Your task to perform on an android device: toggle translation in the chrome app Image 0: 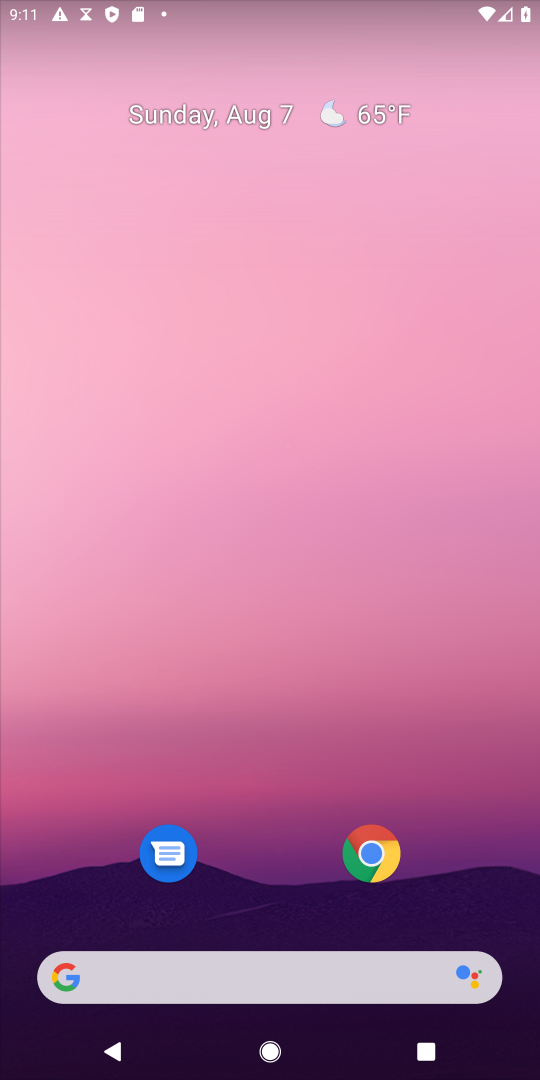
Step 0: drag from (275, 914) to (264, 45)
Your task to perform on an android device: toggle translation in the chrome app Image 1: 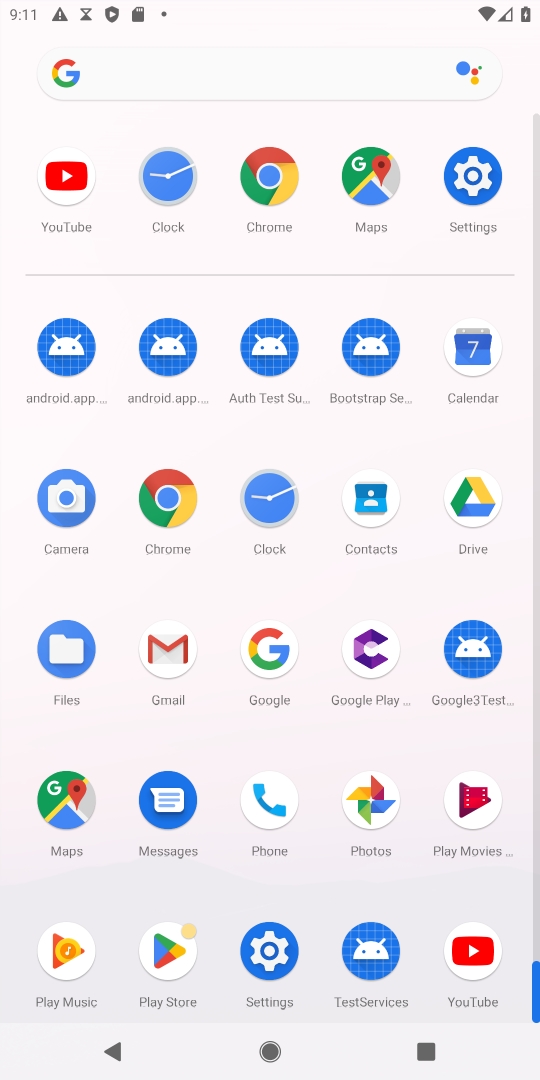
Step 1: click (267, 186)
Your task to perform on an android device: toggle translation in the chrome app Image 2: 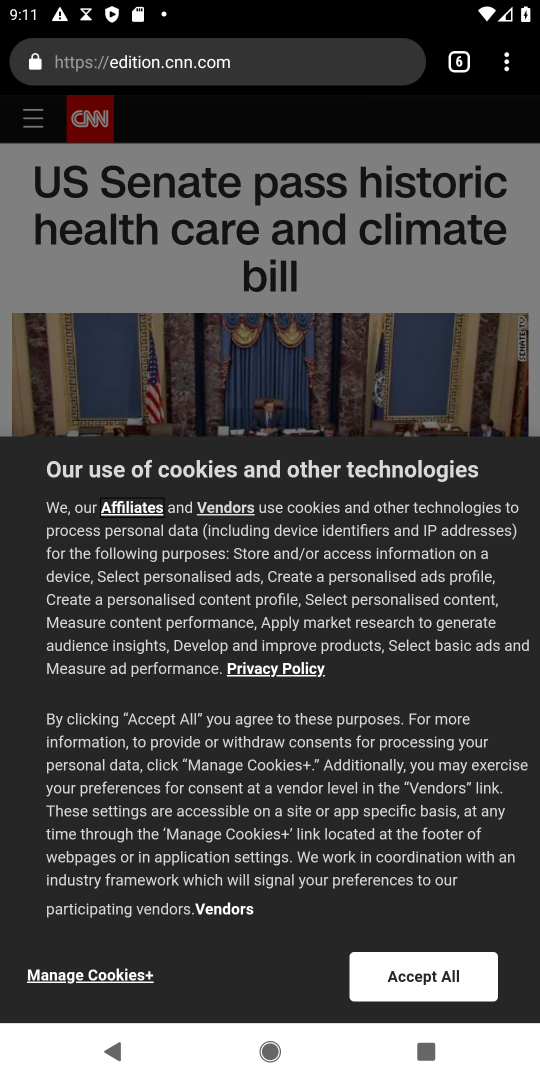
Step 2: click (515, 56)
Your task to perform on an android device: toggle translation in the chrome app Image 3: 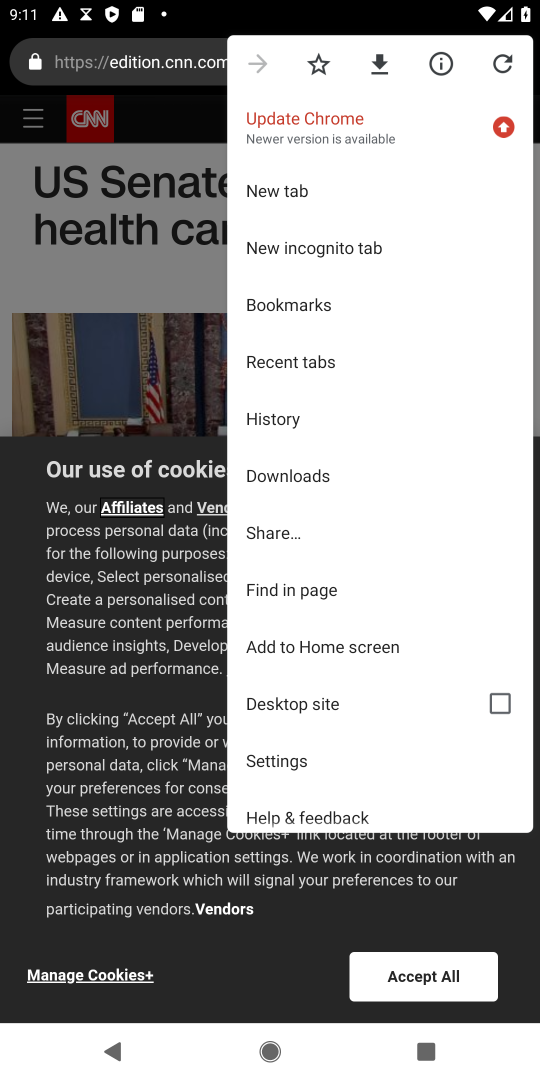
Step 3: click (305, 759)
Your task to perform on an android device: toggle translation in the chrome app Image 4: 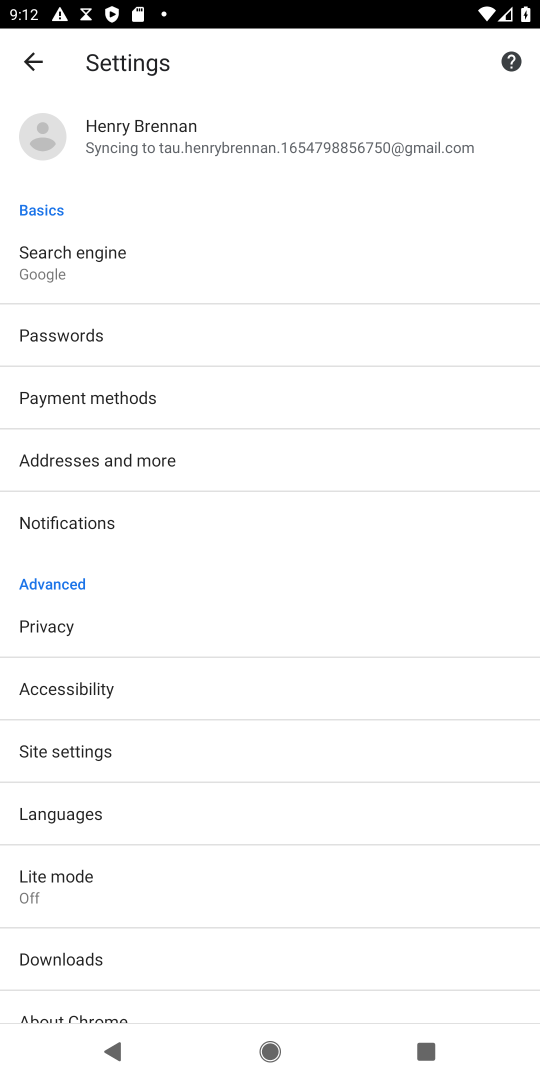
Step 4: drag from (162, 867) to (164, 505)
Your task to perform on an android device: toggle translation in the chrome app Image 5: 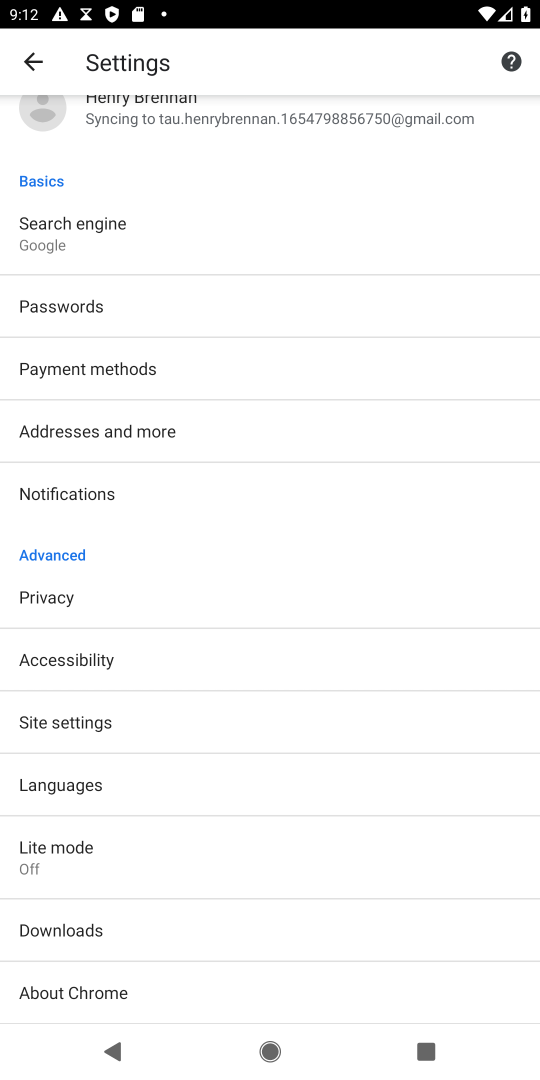
Step 5: click (123, 774)
Your task to perform on an android device: toggle translation in the chrome app Image 6: 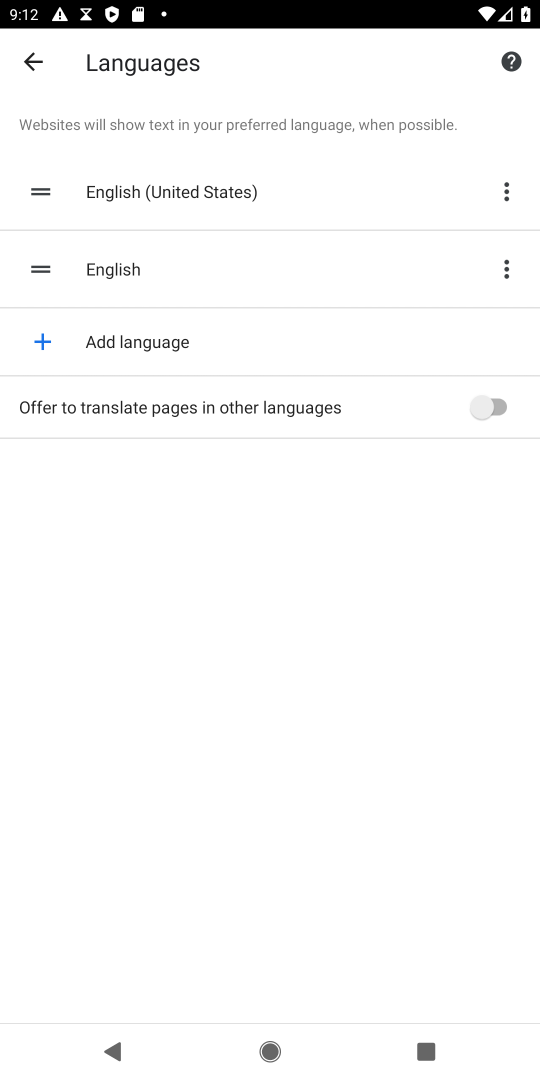
Step 6: click (493, 400)
Your task to perform on an android device: toggle translation in the chrome app Image 7: 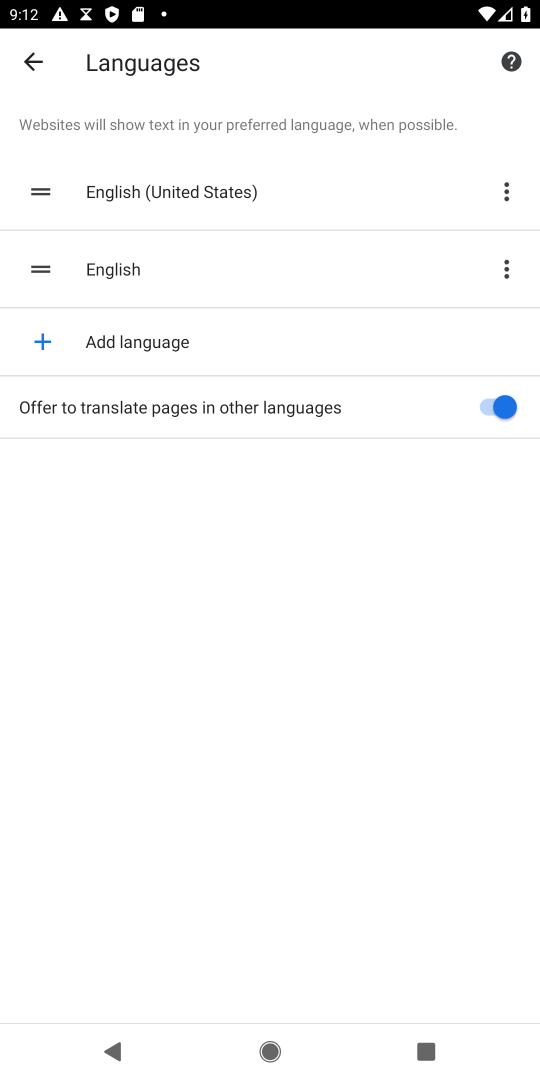
Step 7: task complete